Your task to perform on an android device: show emergency info Image 0: 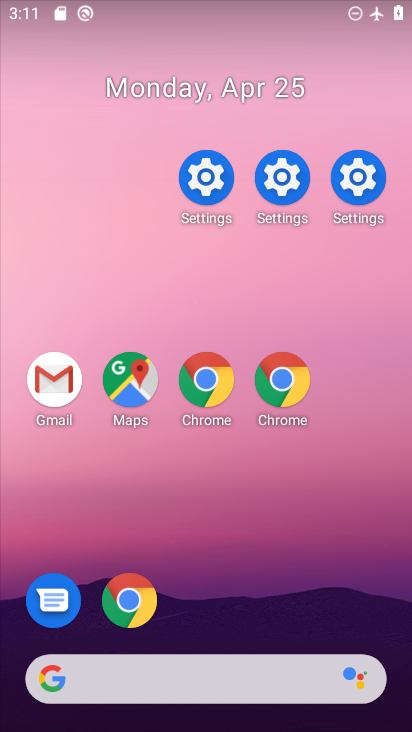
Step 0: drag from (249, 616) to (163, 71)
Your task to perform on an android device: show emergency info Image 1: 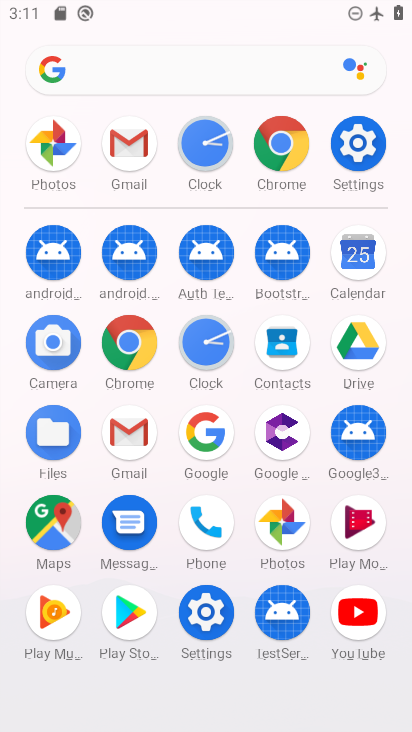
Step 1: click (364, 135)
Your task to perform on an android device: show emergency info Image 2: 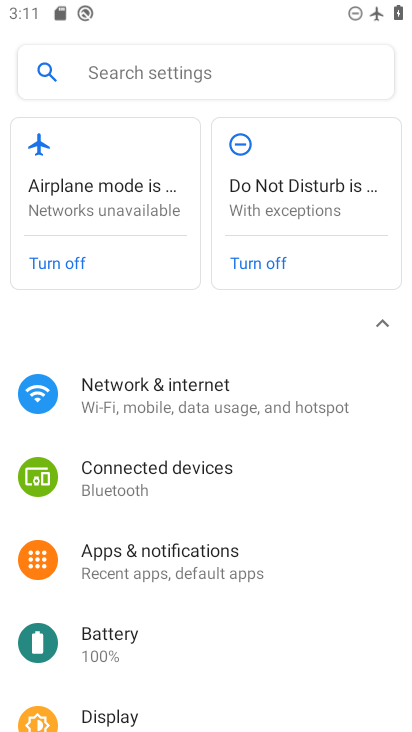
Step 2: drag from (168, 584) to (103, 237)
Your task to perform on an android device: show emergency info Image 3: 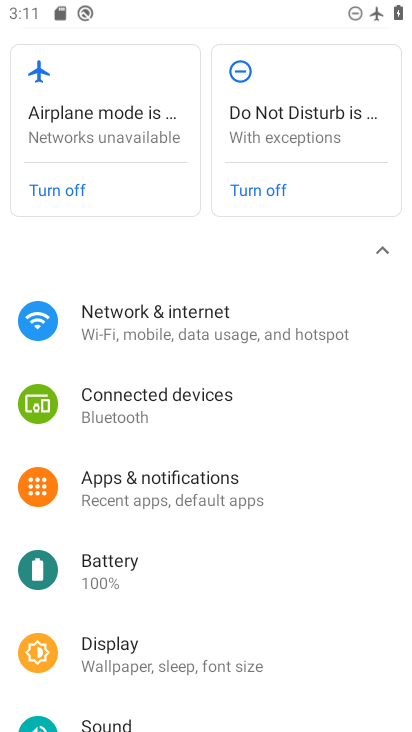
Step 3: drag from (200, 574) to (126, 111)
Your task to perform on an android device: show emergency info Image 4: 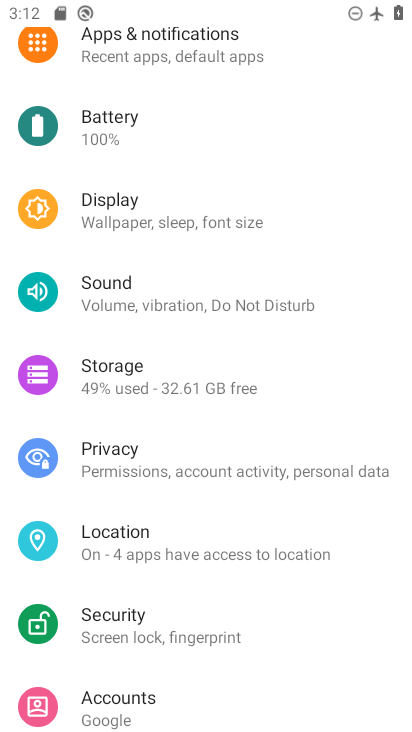
Step 4: drag from (160, 638) to (111, 215)
Your task to perform on an android device: show emergency info Image 5: 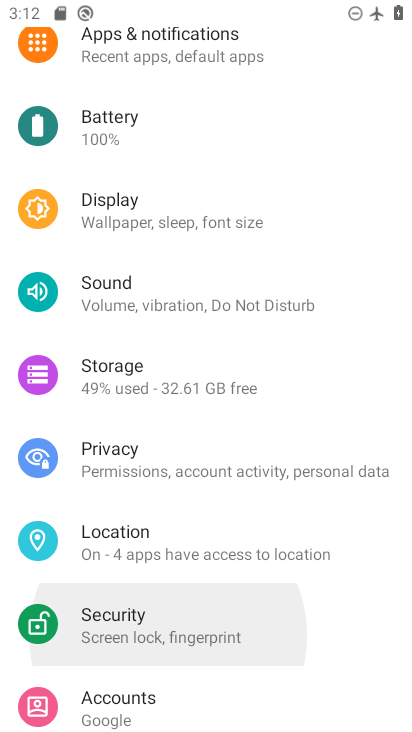
Step 5: drag from (265, 566) to (170, 0)
Your task to perform on an android device: show emergency info Image 6: 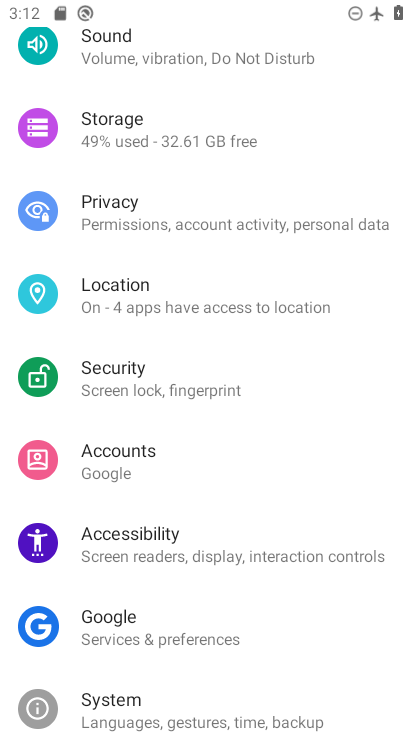
Step 6: drag from (226, 291) to (200, 4)
Your task to perform on an android device: show emergency info Image 7: 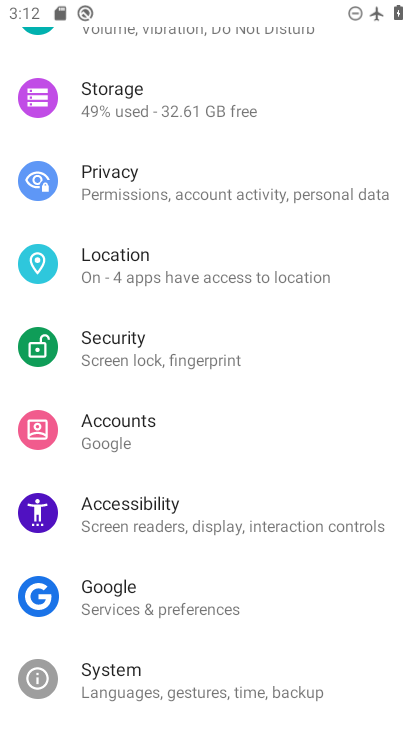
Step 7: drag from (176, 346) to (278, 33)
Your task to perform on an android device: show emergency info Image 8: 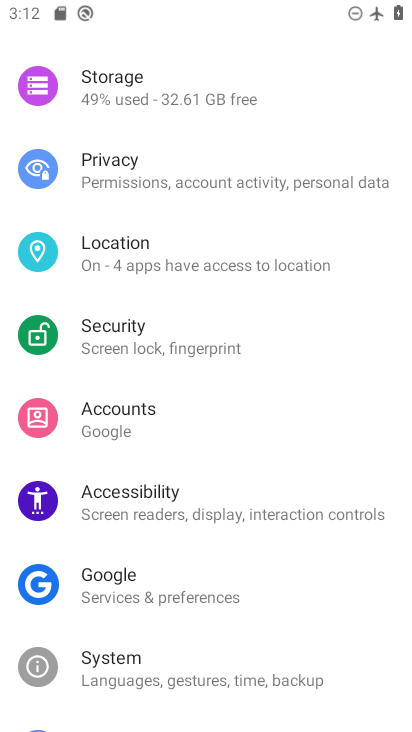
Step 8: click (165, 139)
Your task to perform on an android device: show emergency info Image 9: 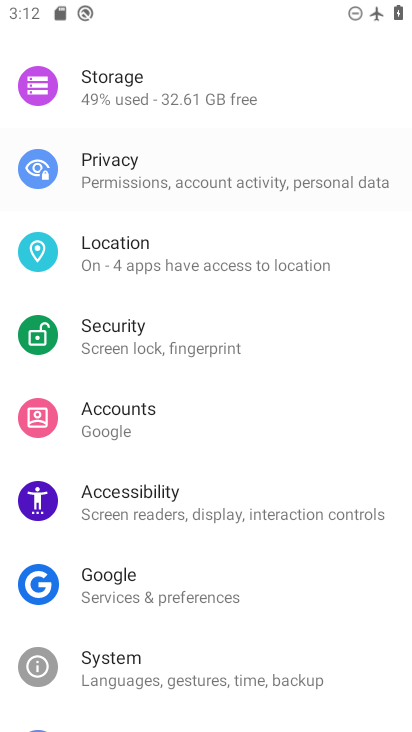
Step 9: drag from (183, 454) to (201, 21)
Your task to perform on an android device: show emergency info Image 10: 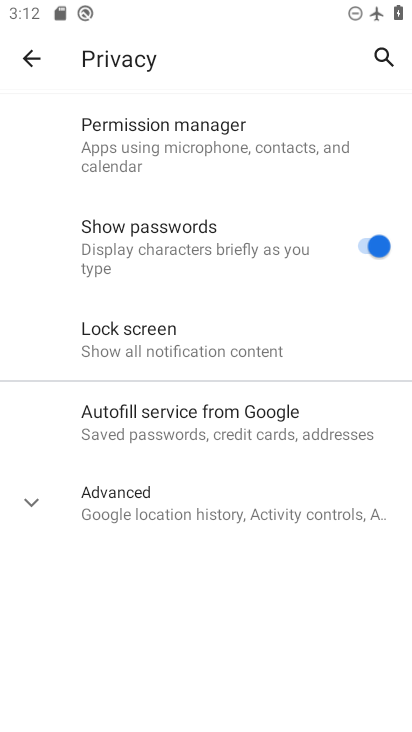
Step 10: drag from (155, 391) to (280, 37)
Your task to perform on an android device: show emergency info Image 11: 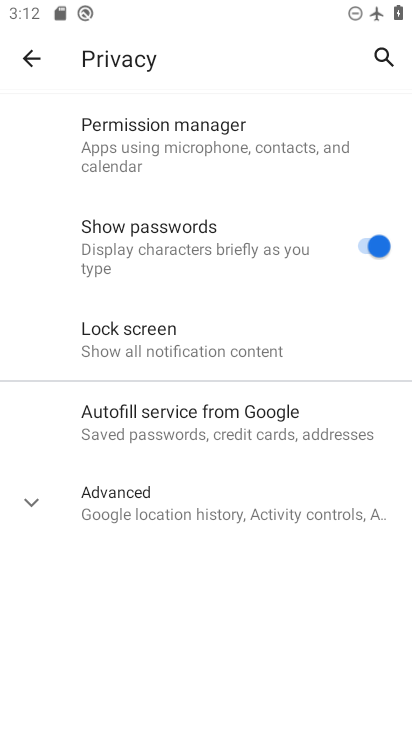
Step 11: click (26, 64)
Your task to perform on an android device: show emergency info Image 12: 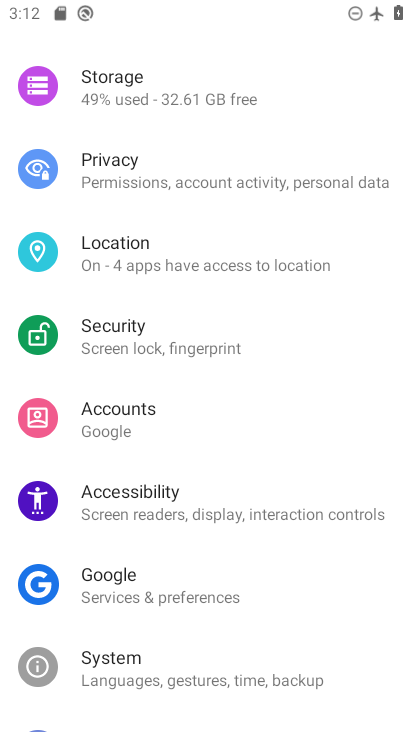
Step 12: drag from (176, 527) to (152, 16)
Your task to perform on an android device: show emergency info Image 13: 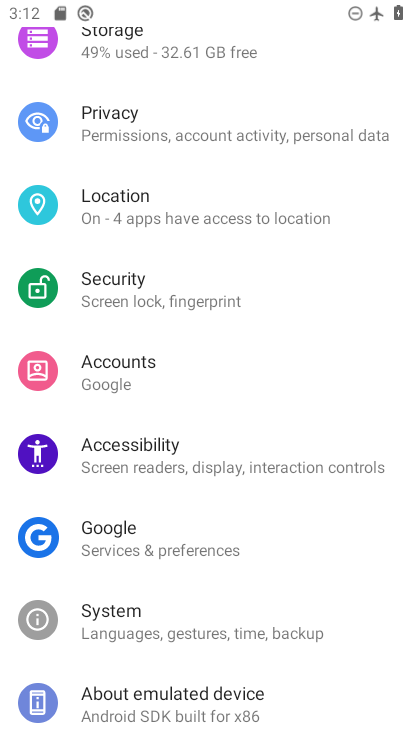
Step 13: click (173, 707)
Your task to perform on an android device: show emergency info Image 14: 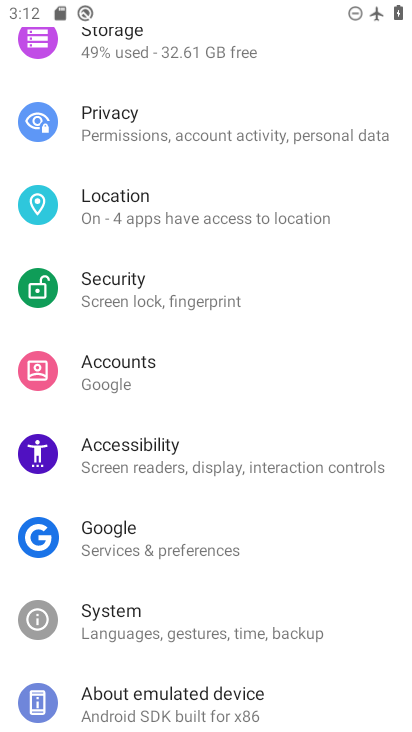
Step 14: click (164, 698)
Your task to perform on an android device: show emergency info Image 15: 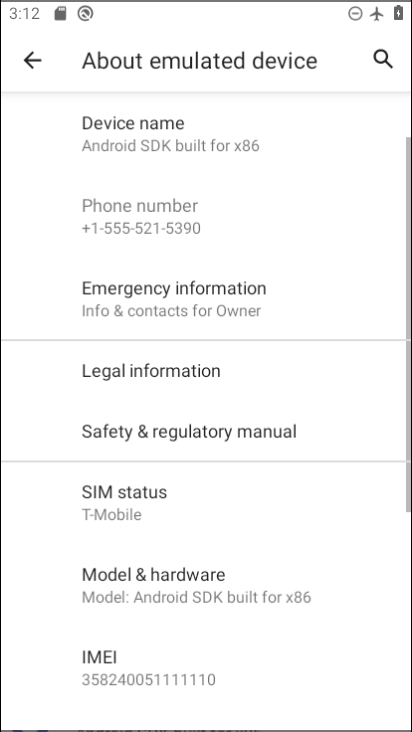
Step 15: click (157, 695)
Your task to perform on an android device: show emergency info Image 16: 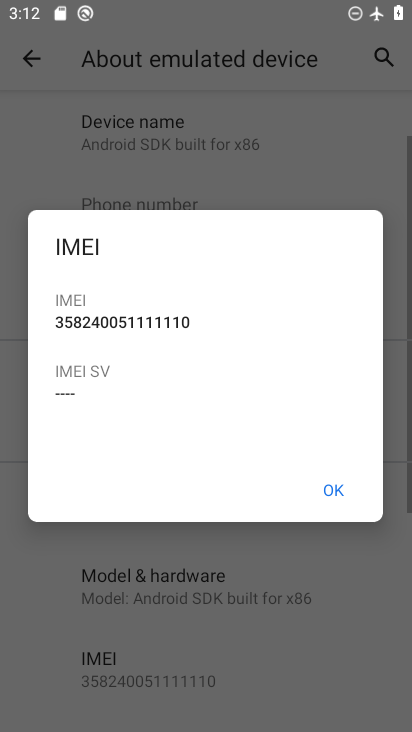
Step 16: click (334, 495)
Your task to perform on an android device: show emergency info Image 17: 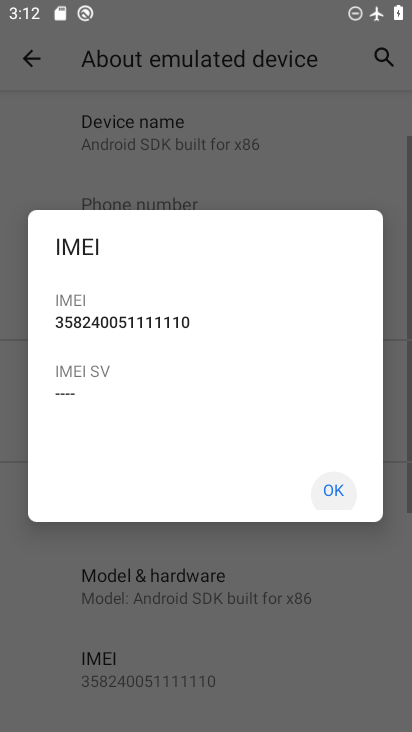
Step 17: click (324, 478)
Your task to perform on an android device: show emergency info Image 18: 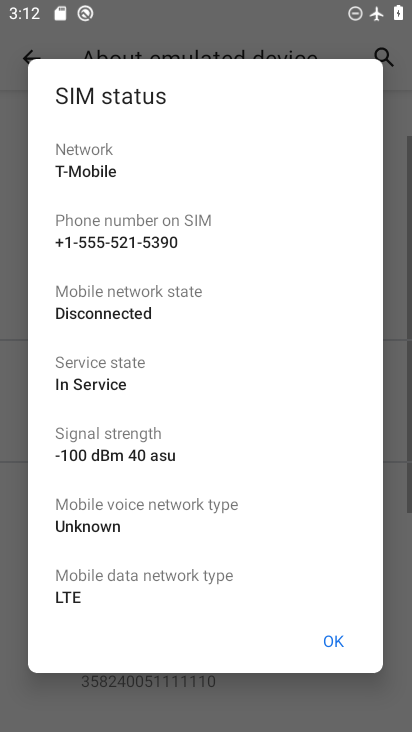
Step 18: click (332, 640)
Your task to perform on an android device: show emergency info Image 19: 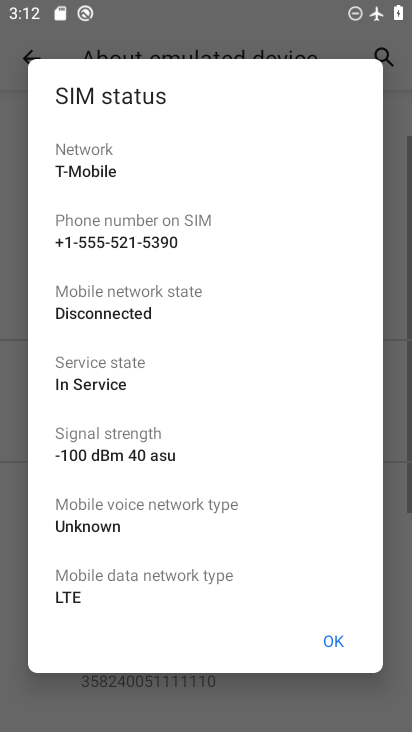
Step 19: click (331, 639)
Your task to perform on an android device: show emergency info Image 20: 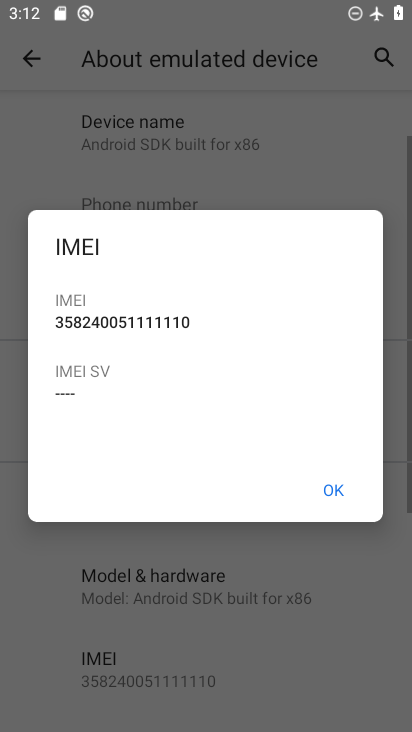
Step 20: click (335, 498)
Your task to perform on an android device: show emergency info Image 21: 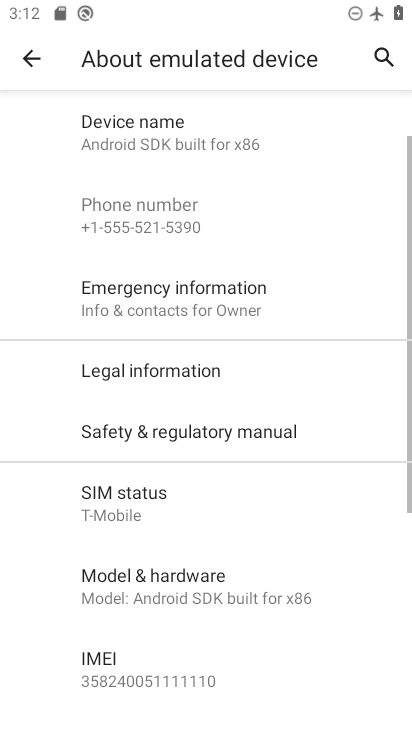
Step 21: click (154, 304)
Your task to perform on an android device: show emergency info Image 22: 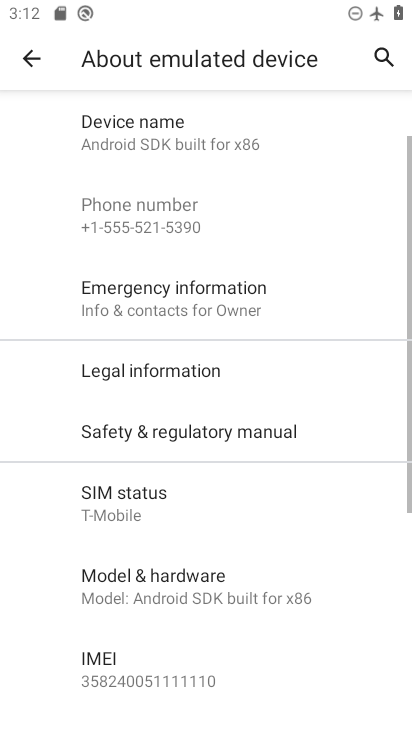
Step 22: task complete